Your task to perform on an android device: What's the weather going to be tomorrow? Image 0: 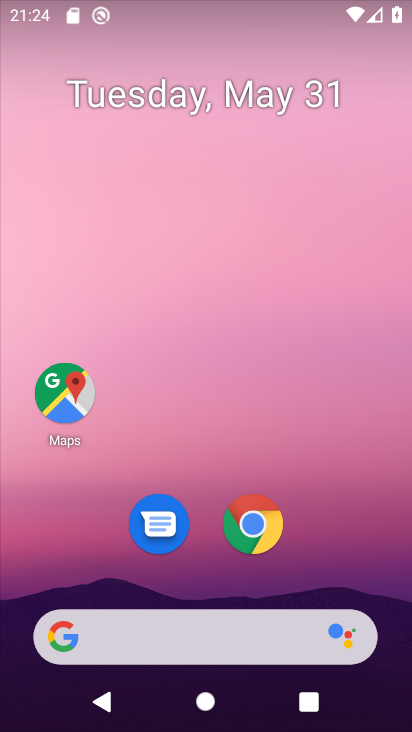
Step 0: click (266, 628)
Your task to perform on an android device: What's the weather going to be tomorrow? Image 1: 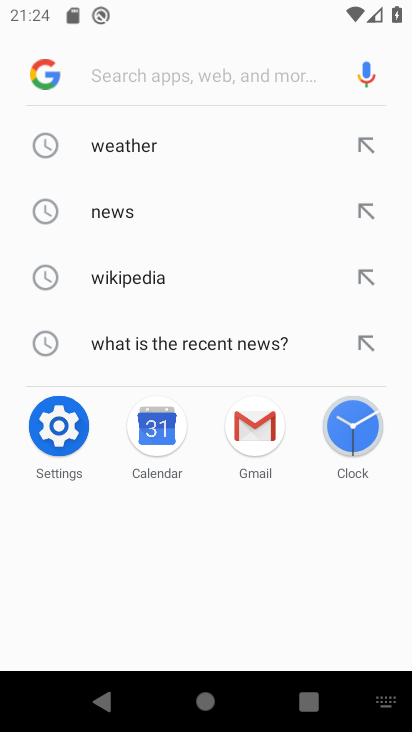
Step 1: click (131, 131)
Your task to perform on an android device: What's the weather going to be tomorrow? Image 2: 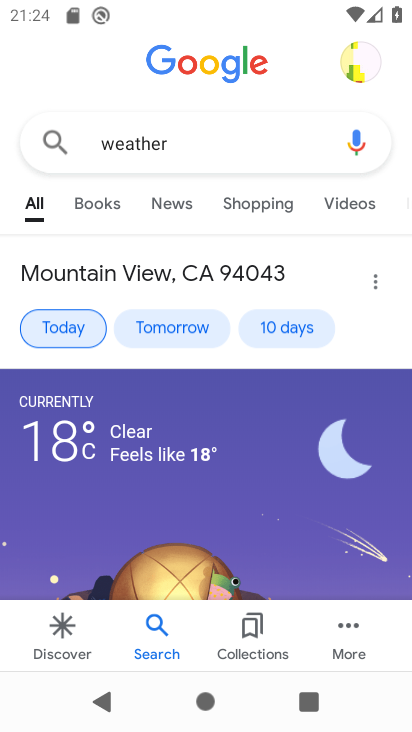
Step 2: click (170, 318)
Your task to perform on an android device: What's the weather going to be tomorrow? Image 3: 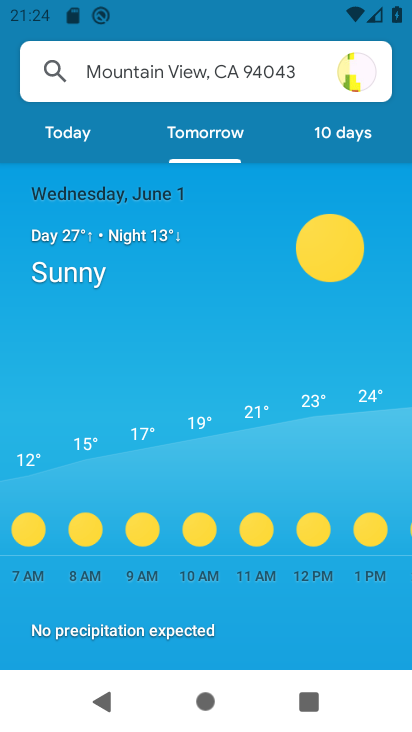
Step 3: task complete